Your task to perform on an android device: install app "Flipkart Online Shopping App" Image 0: 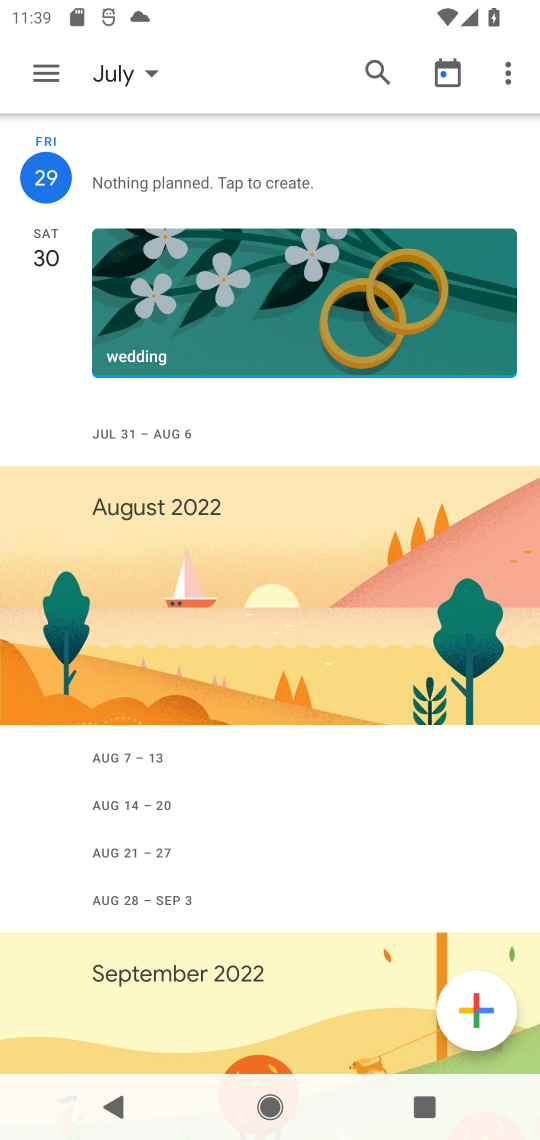
Step 0: press home button
Your task to perform on an android device: install app "Flipkart Online Shopping App" Image 1: 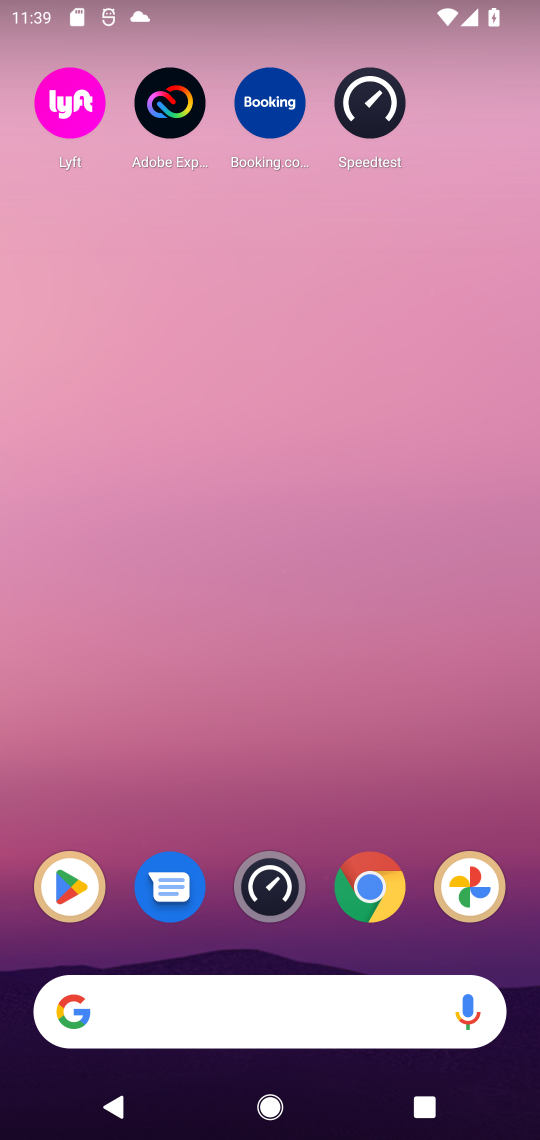
Step 1: drag from (191, 1023) to (290, 176)
Your task to perform on an android device: install app "Flipkart Online Shopping App" Image 2: 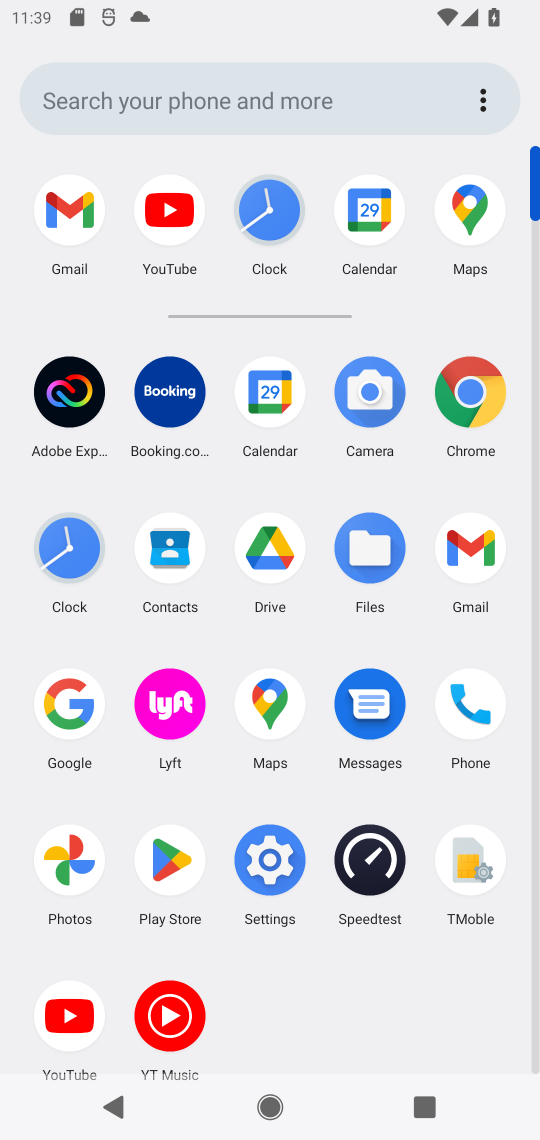
Step 2: click (170, 866)
Your task to perform on an android device: install app "Flipkart Online Shopping App" Image 3: 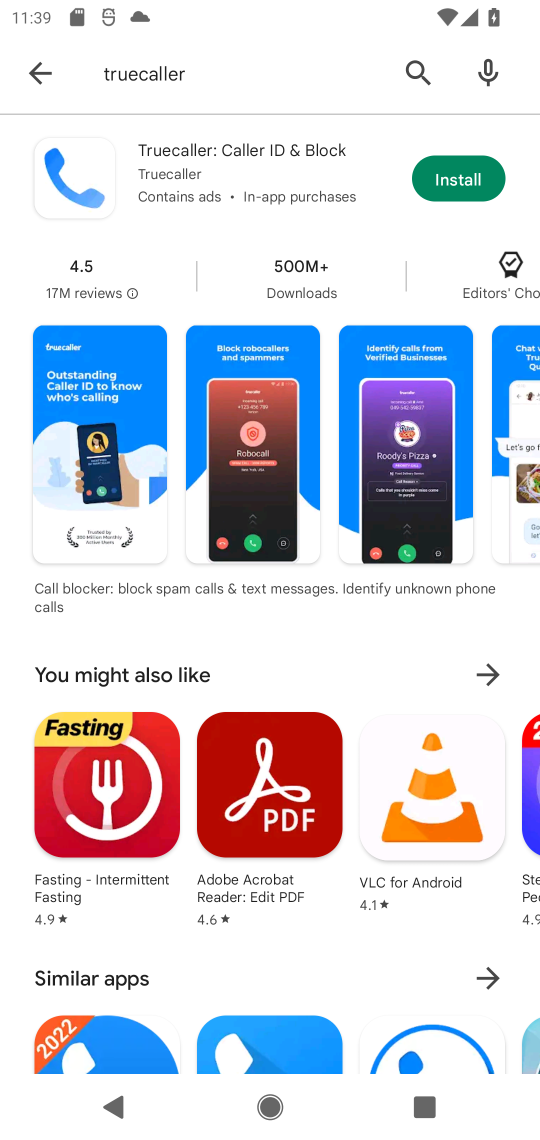
Step 3: click (409, 74)
Your task to perform on an android device: install app "Flipkart Online Shopping App" Image 4: 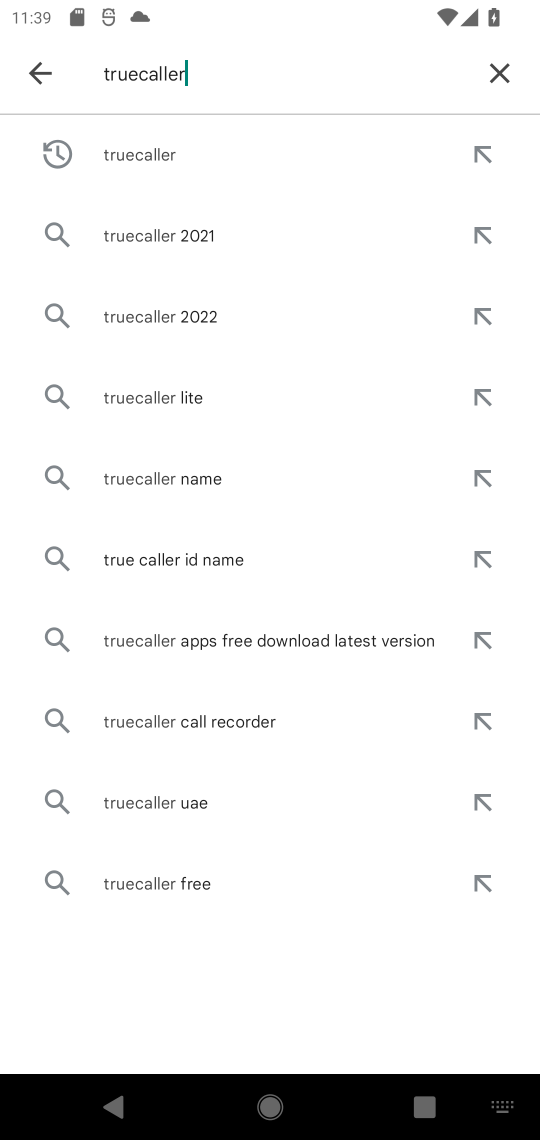
Step 4: click (502, 81)
Your task to perform on an android device: install app "Flipkart Online Shopping App" Image 5: 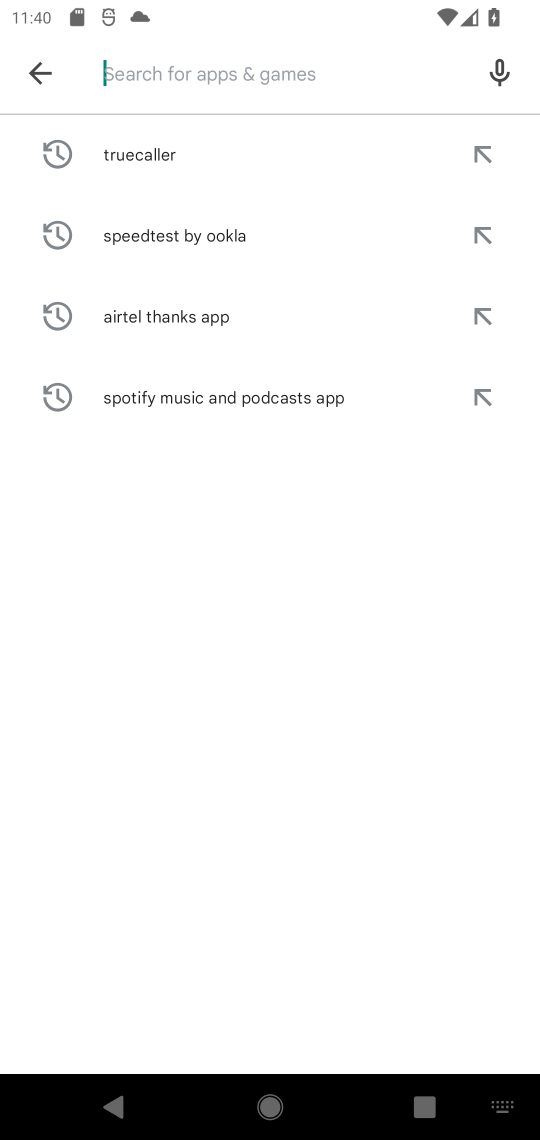
Step 5: type "Flipkart Online Shopping App"
Your task to perform on an android device: install app "Flipkart Online Shopping App" Image 6: 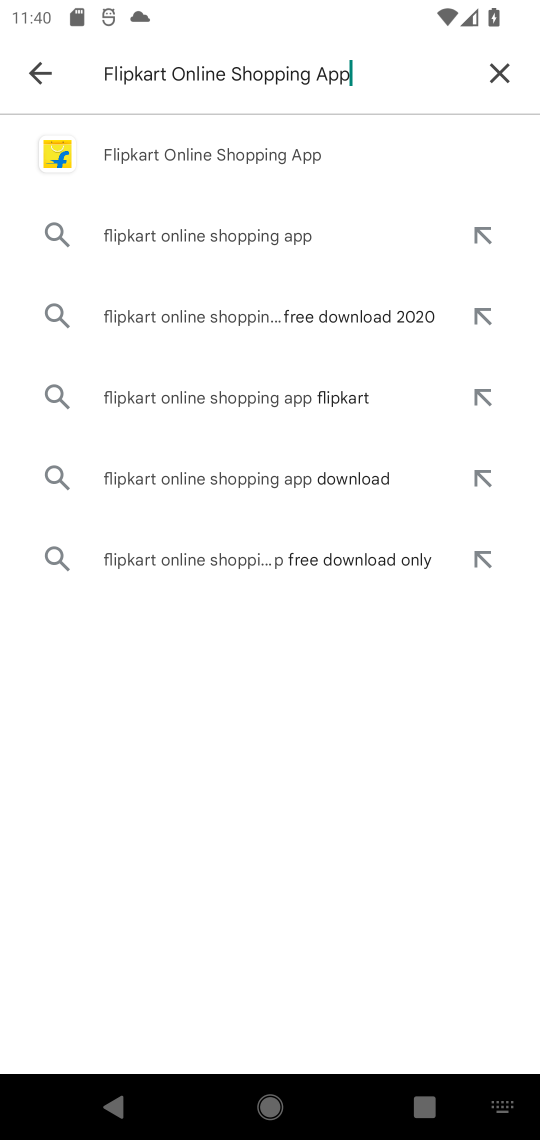
Step 6: click (151, 147)
Your task to perform on an android device: install app "Flipkart Online Shopping App" Image 7: 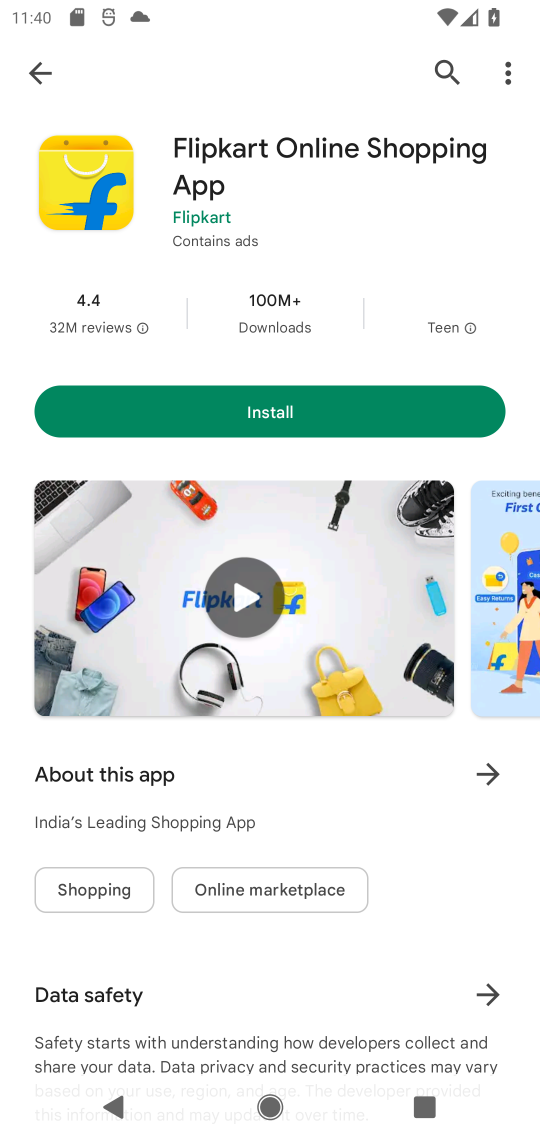
Step 7: click (280, 416)
Your task to perform on an android device: install app "Flipkart Online Shopping App" Image 8: 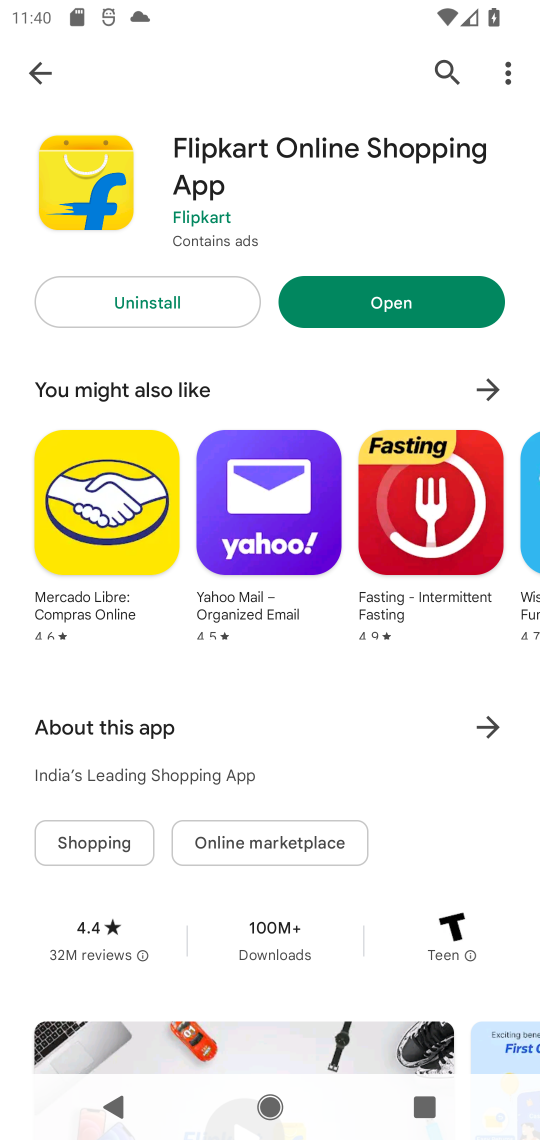
Step 8: task complete